Your task to perform on an android device: add a contact Image 0: 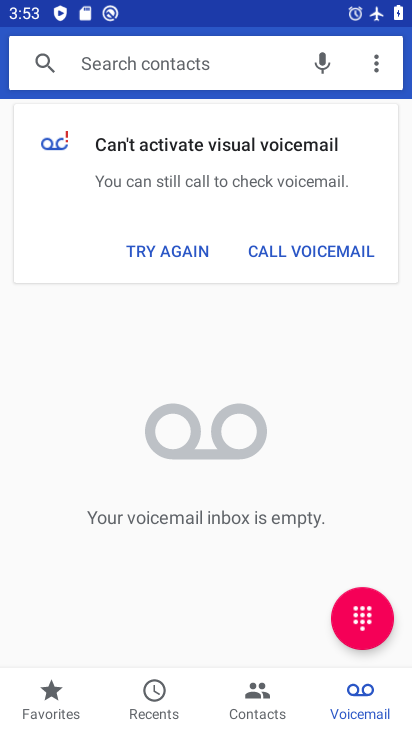
Step 0: press home button
Your task to perform on an android device: add a contact Image 1: 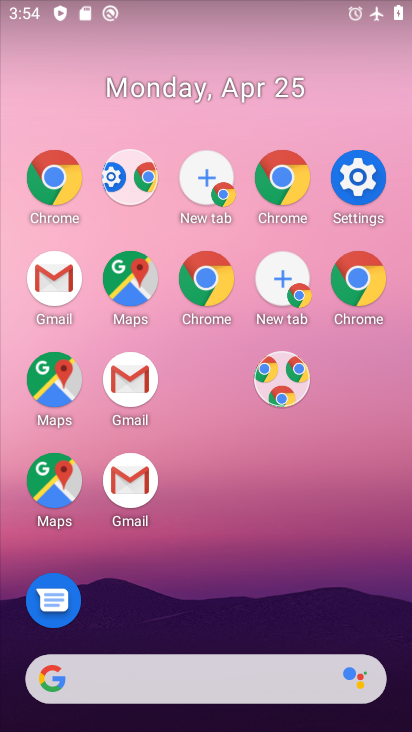
Step 1: drag from (261, 699) to (138, 3)
Your task to perform on an android device: add a contact Image 2: 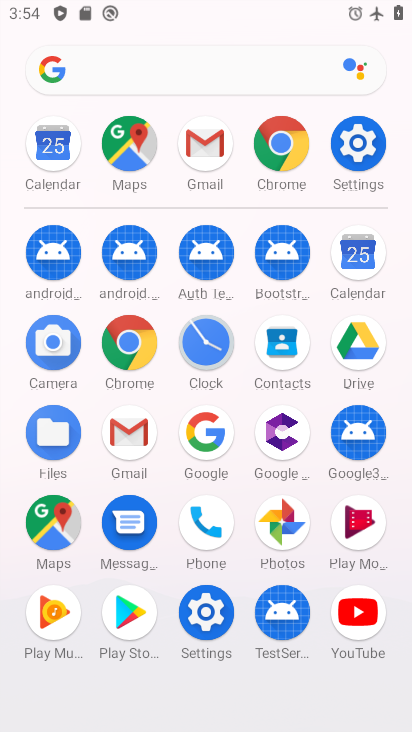
Step 2: click (279, 348)
Your task to perform on an android device: add a contact Image 3: 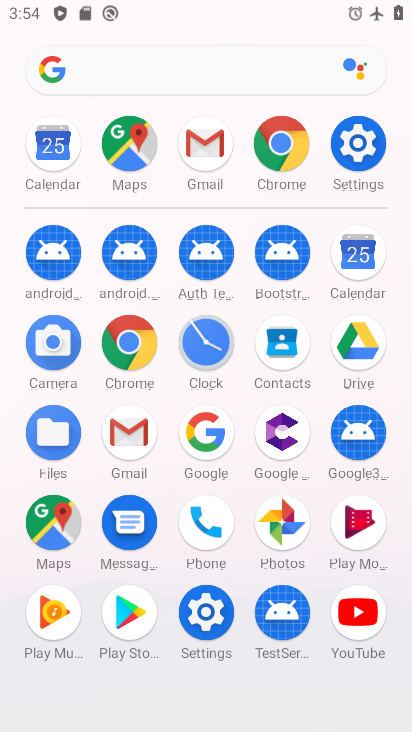
Step 3: click (279, 348)
Your task to perform on an android device: add a contact Image 4: 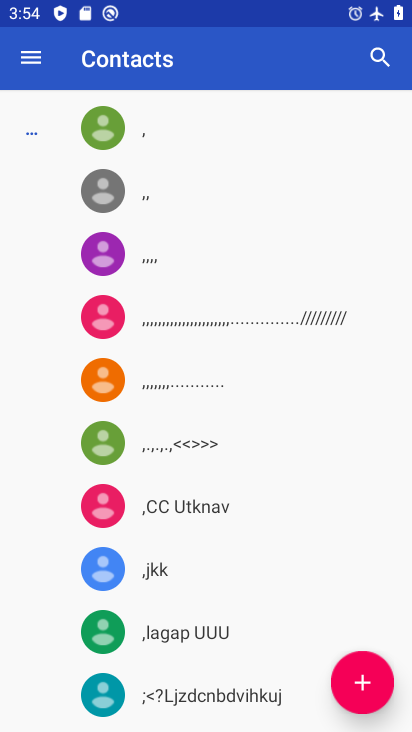
Step 4: click (349, 681)
Your task to perform on an android device: add a contact Image 5: 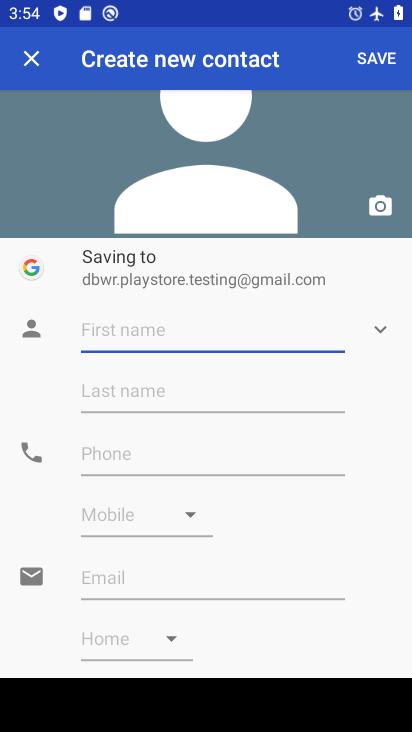
Step 5: type "gunjan"
Your task to perform on an android device: add a contact Image 6: 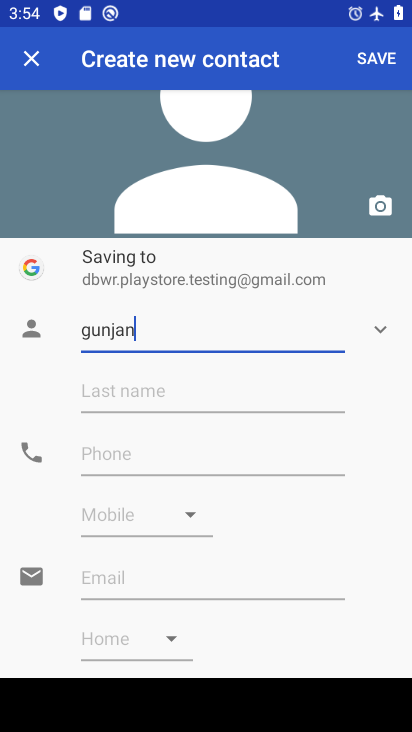
Step 6: click (86, 468)
Your task to perform on an android device: add a contact Image 7: 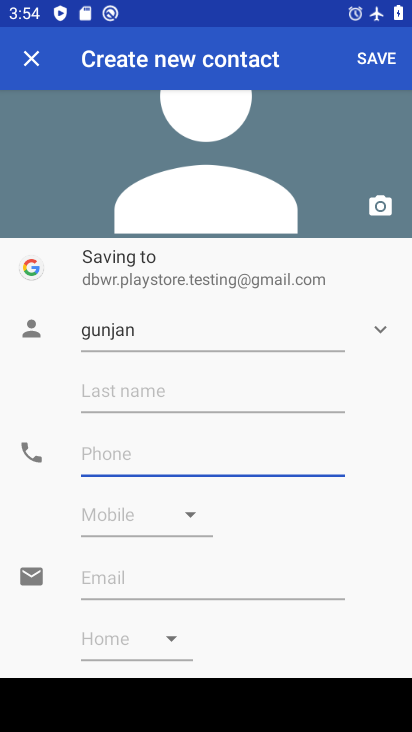
Step 7: type "9807554513"
Your task to perform on an android device: add a contact Image 8: 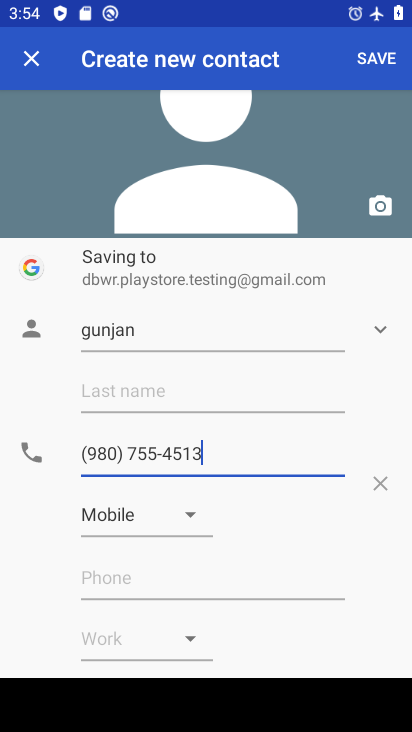
Step 8: click (367, 53)
Your task to perform on an android device: add a contact Image 9: 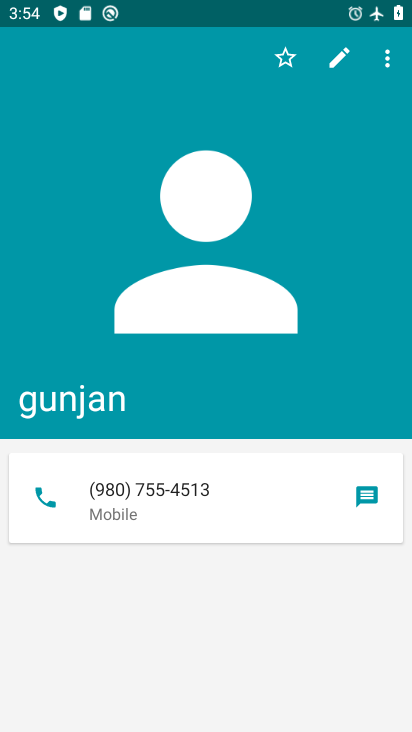
Step 9: task complete